Your task to perform on an android device: Open the calendar and show me this week's events Image 0: 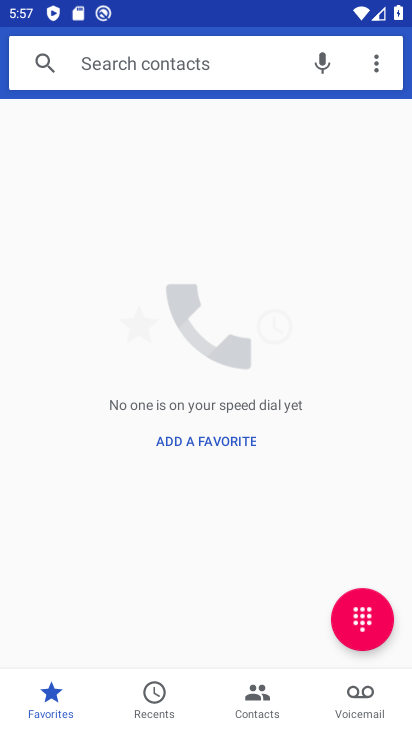
Step 0: press home button
Your task to perform on an android device: Open the calendar and show me this week's events Image 1: 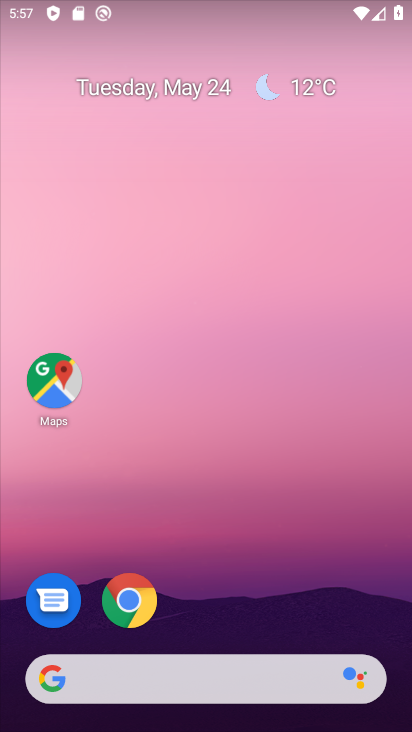
Step 1: drag from (258, 674) to (340, 33)
Your task to perform on an android device: Open the calendar and show me this week's events Image 2: 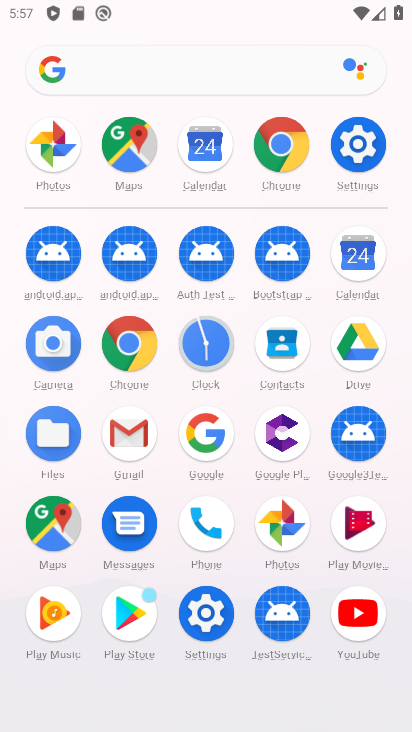
Step 2: click (356, 261)
Your task to perform on an android device: Open the calendar and show me this week's events Image 3: 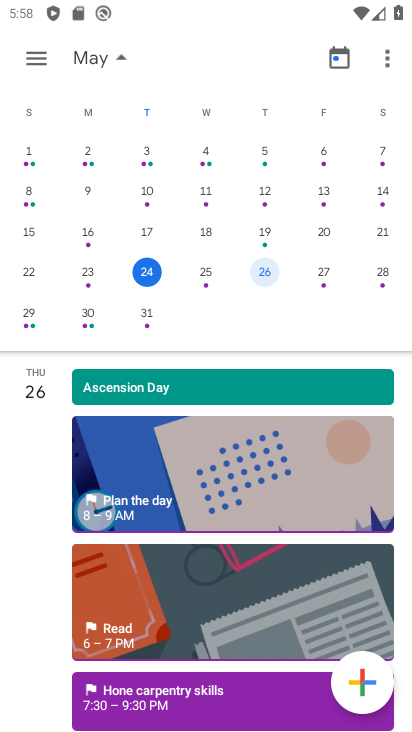
Step 3: task complete